Your task to perform on an android device: search for starred emails in the gmail app Image 0: 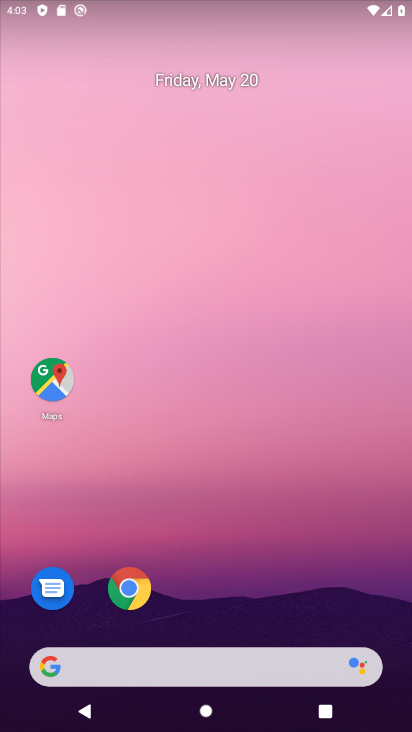
Step 0: drag from (217, 571) to (188, 111)
Your task to perform on an android device: search for starred emails in the gmail app Image 1: 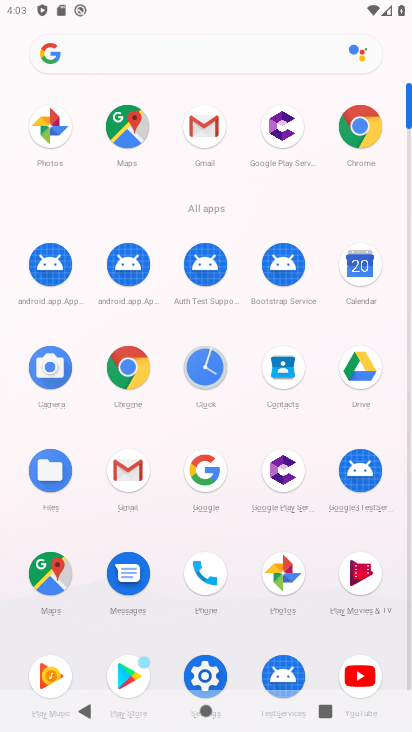
Step 1: click (132, 462)
Your task to perform on an android device: search for starred emails in the gmail app Image 2: 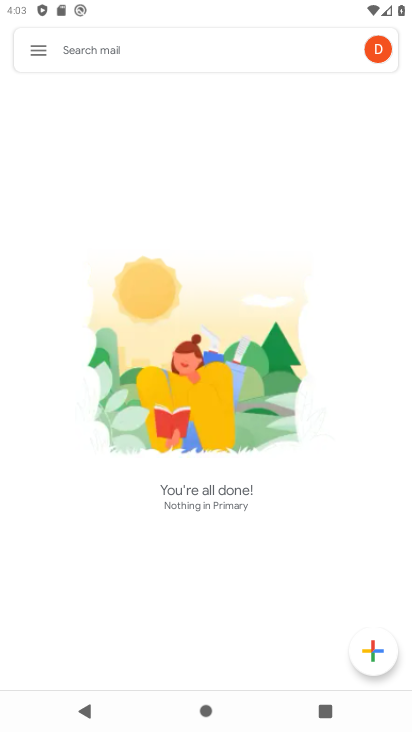
Step 2: click (30, 59)
Your task to perform on an android device: search for starred emails in the gmail app Image 3: 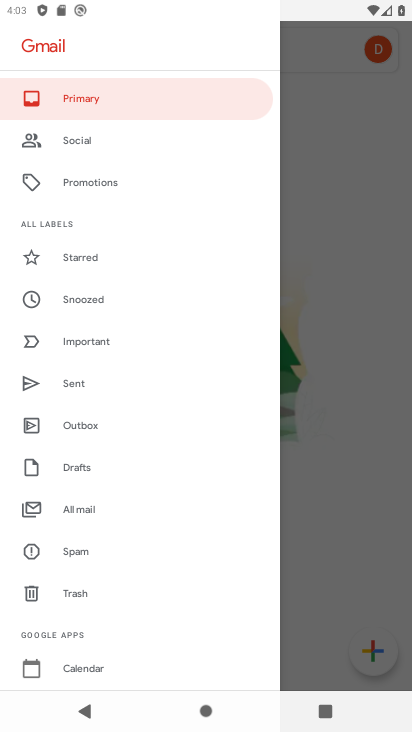
Step 3: click (86, 256)
Your task to perform on an android device: search for starred emails in the gmail app Image 4: 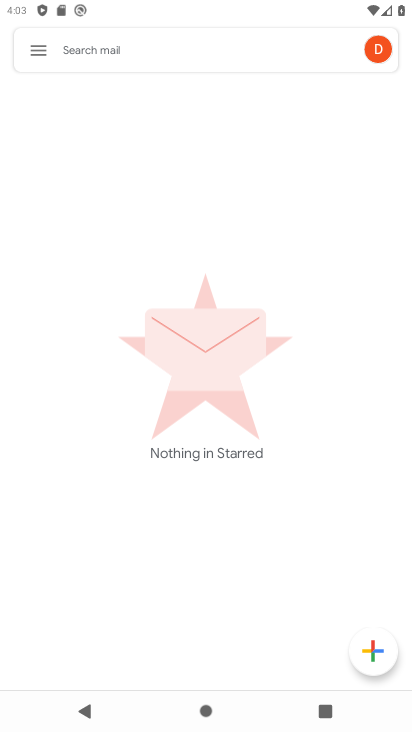
Step 4: task complete